Your task to perform on an android device: toggle pop-ups in chrome Image 0: 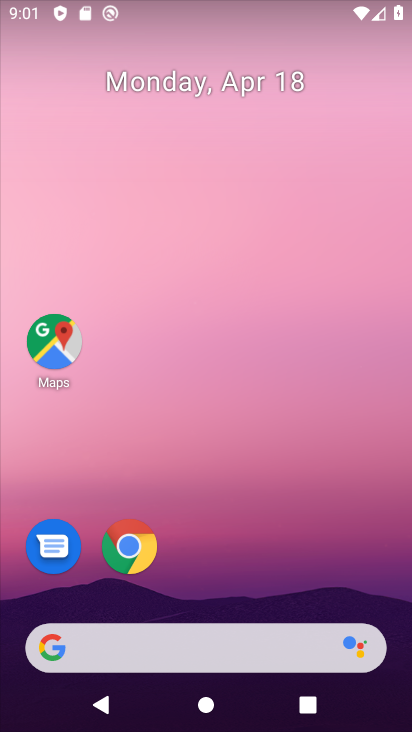
Step 0: drag from (366, 530) to (330, 63)
Your task to perform on an android device: toggle pop-ups in chrome Image 1: 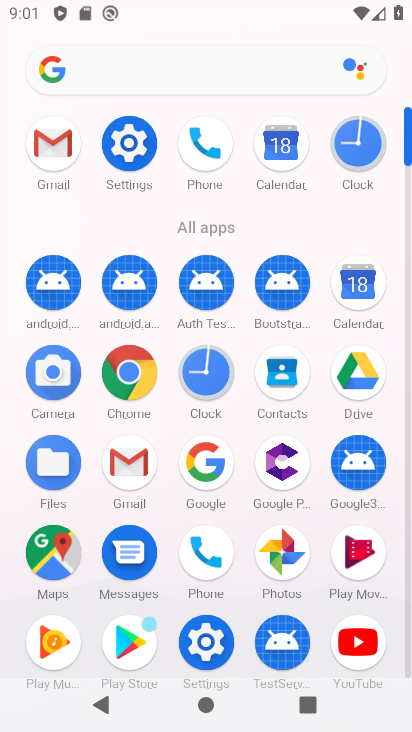
Step 1: click (142, 374)
Your task to perform on an android device: toggle pop-ups in chrome Image 2: 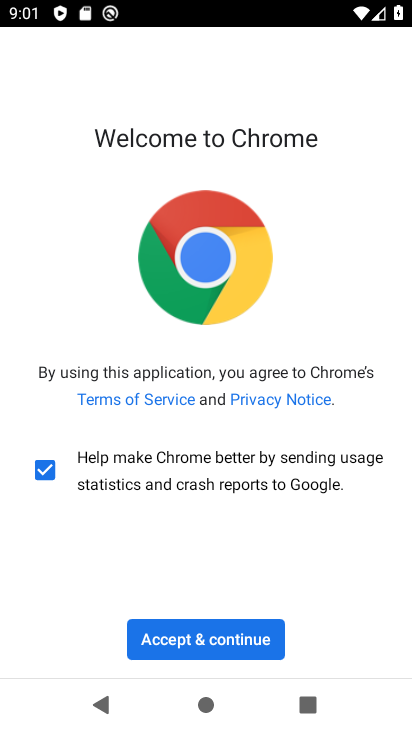
Step 2: click (221, 648)
Your task to perform on an android device: toggle pop-ups in chrome Image 3: 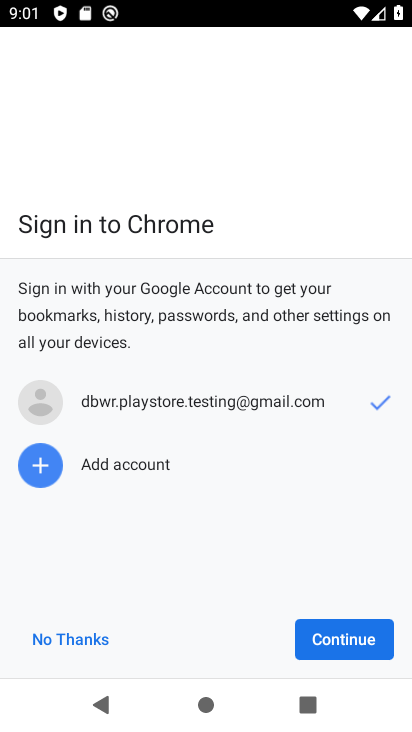
Step 3: click (87, 647)
Your task to perform on an android device: toggle pop-ups in chrome Image 4: 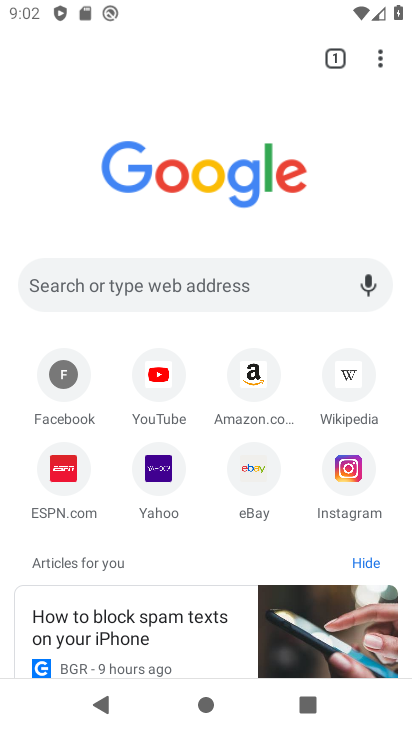
Step 4: click (374, 53)
Your task to perform on an android device: toggle pop-ups in chrome Image 5: 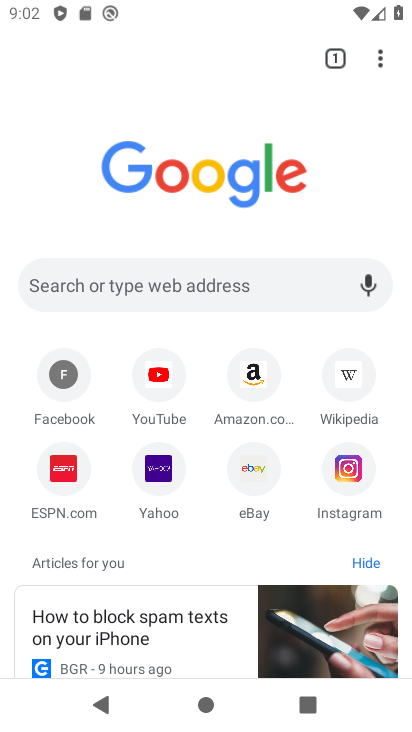
Step 5: drag from (374, 53) to (189, 495)
Your task to perform on an android device: toggle pop-ups in chrome Image 6: 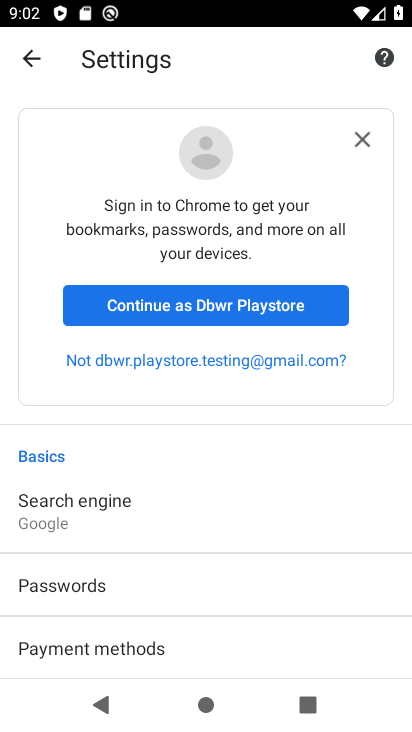
Step 6: drag from (249, 628) to (290, 291)
Your task to perform on an android device: toggle pop-ups in chrome Image 7: 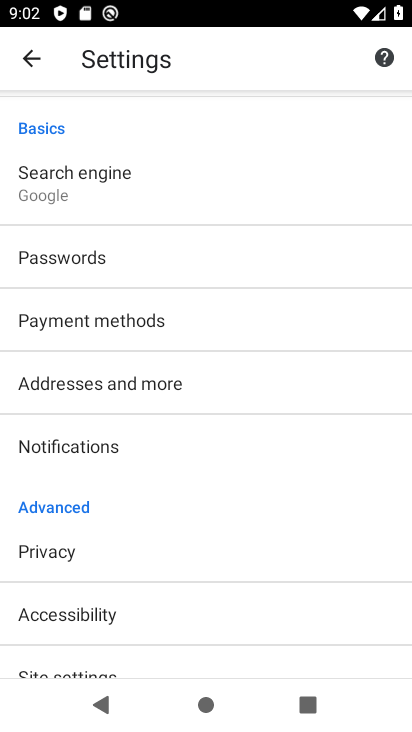
Step 7: drag from (212, 629) to (283, 204)
Your task to perform on an android device: toggle pop-ups in chrome Image 8: 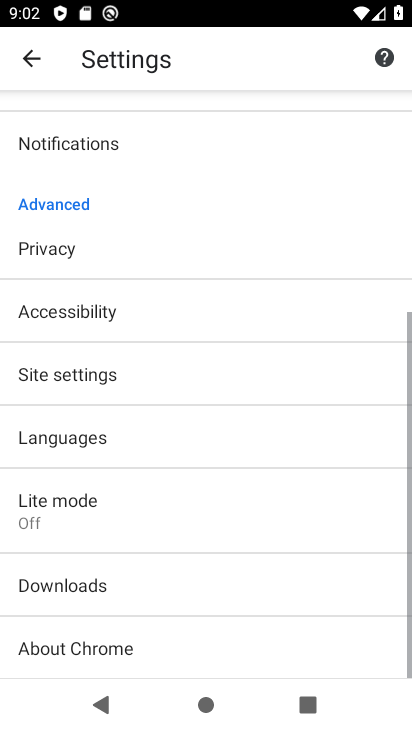
Step 8: drag from (216, 587) to (240, 164)
Your task to perform on an android device: toggle pop-ups in chrome Image 9: 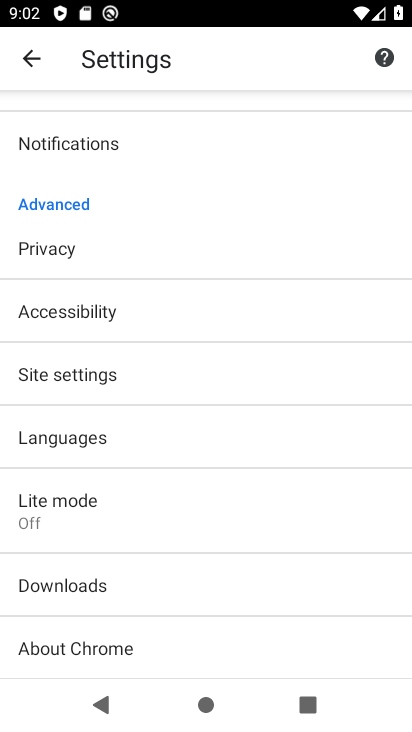
Step 9: drag from (223, 475) to (262, 89)
Your task to perform on an android device: toggle pop-ups in chrome Image 10: 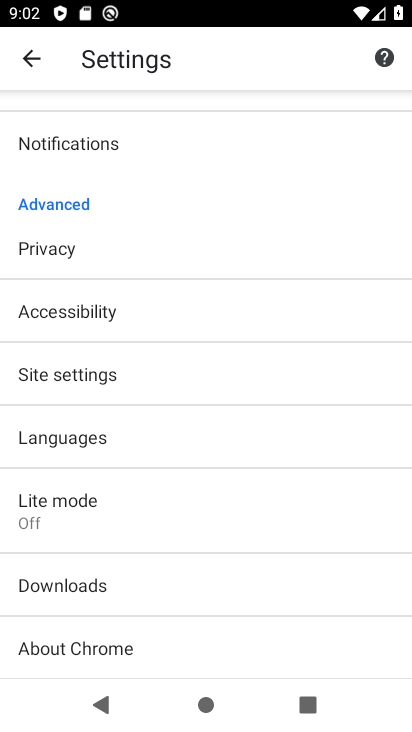
Step 10: drag from (184, 417) to (167, 634)
Your task to perform on an android device: toggle pop-ups in chrome Image 11: 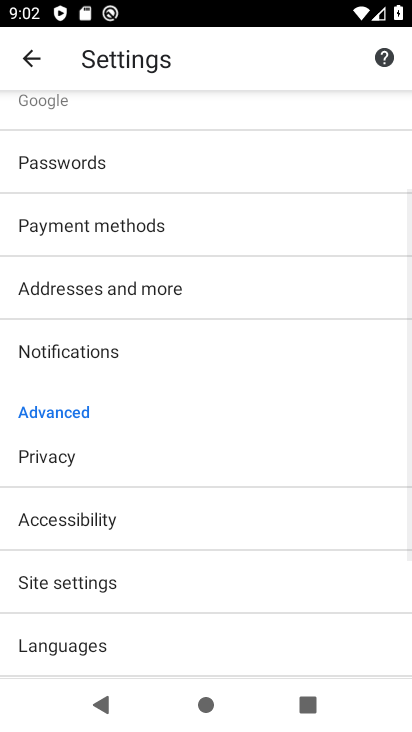
Step 11: drag from (208, 313) to (271, 530)
Your task to perform on an android device: toggle pop-ups in chrome Image 12: 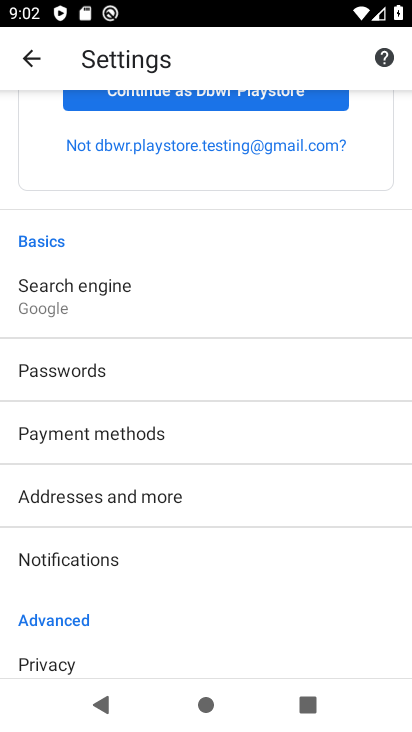
Step 12: drag from (153, 317) to (195, 606)
Your task to perform on an android device: toggle pop-ups in chrome Image 13: 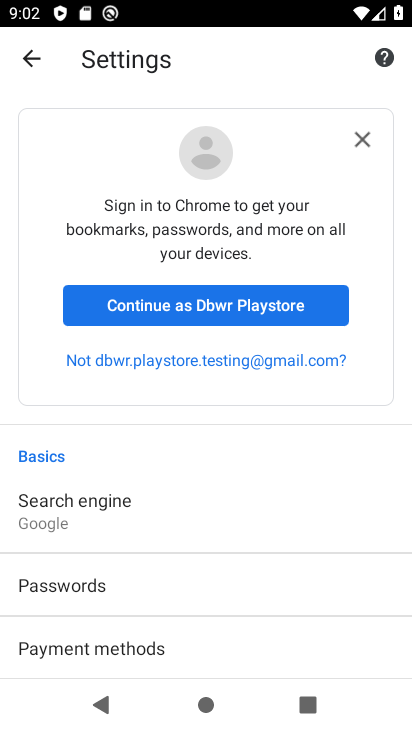
Step 13: drag from (205, 342) to (235, 563)
Your task to perform on an android device: toggle pop-ups in chrome Image 14: 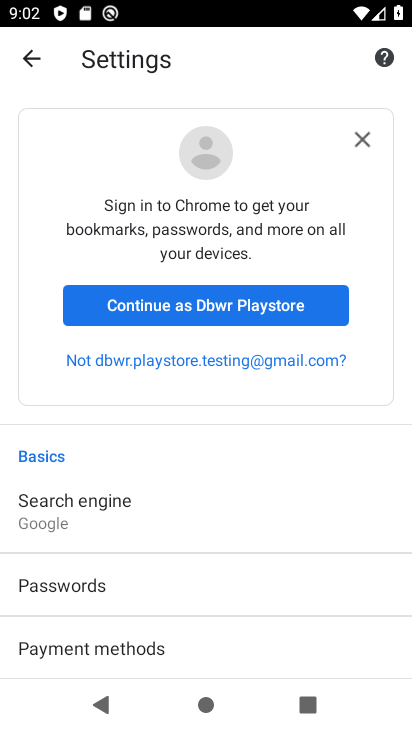
Step 14: drag from (255, 606) to (200, 225)
Your task to perform on an android device: toggle pop-ups in chrome Image 15: 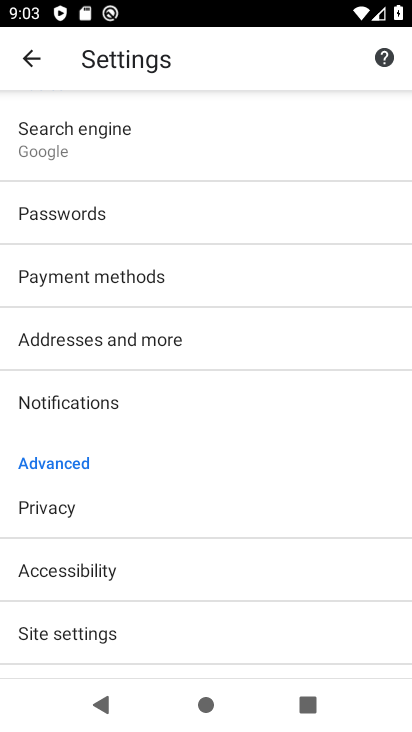
Step 15: drag from (232, 517) to (284, 138)
Your task to perform on an android device: toggle pop-ups in chrome Image 16: 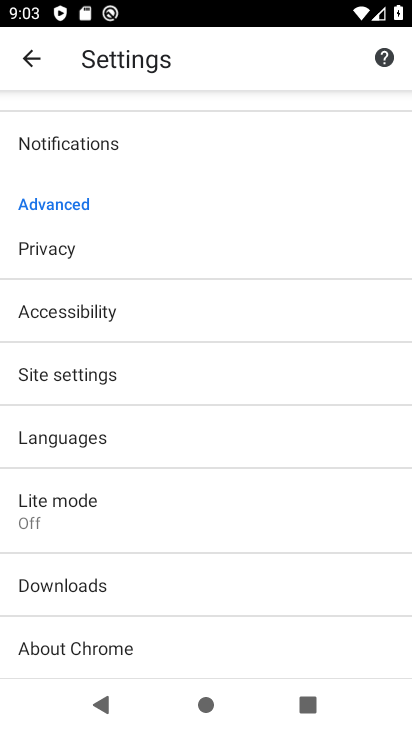
Step 16: click (18, 61)
Your task to perform on an android device: toggle pop-ups in chrome Image 17: 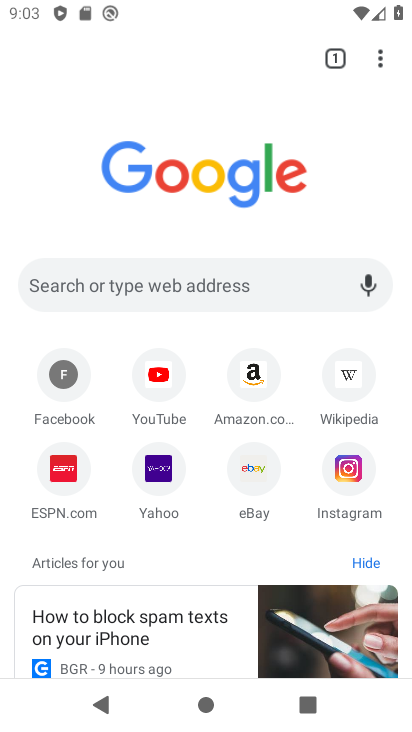
Step 17: drag from (377, 52) to (160, 493)
Your task to perform on an android device: toggle pop-ups in chrome Image 18: 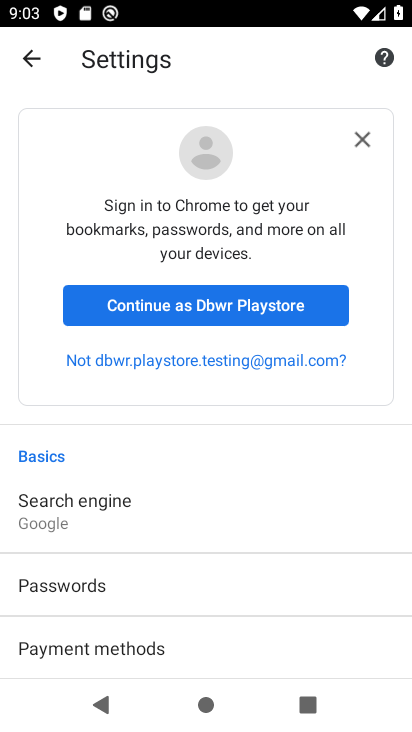
Step 18: drag from (175, 578) to (173, 147)
Your task to perform on an android device: toggle pop-ups in chrome Image 19: 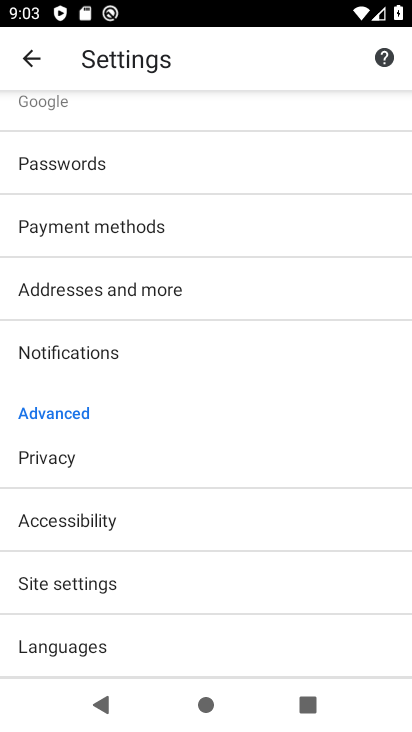
Step 19: drag from (191, 540) to (132, 107)
Your task to perform on an android device: toggle pop-ups in chrome Image 20: 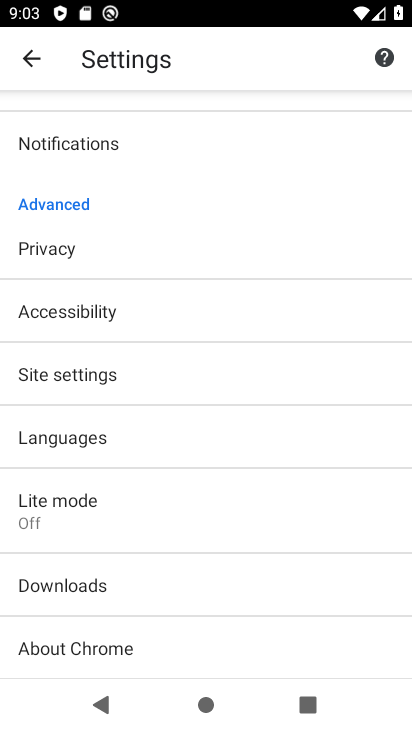
Step 20: click (126, 379)
Your task to perform on an android device: toggle pop-ups in chrome Image 21: 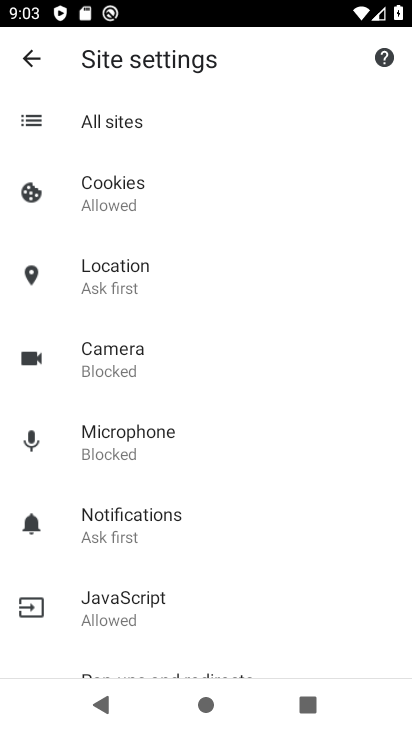
Step 21: drag from (170, 622) to (117, 259)
Your task to perform on an android device: toggle pop-ups in chrome Image 22: 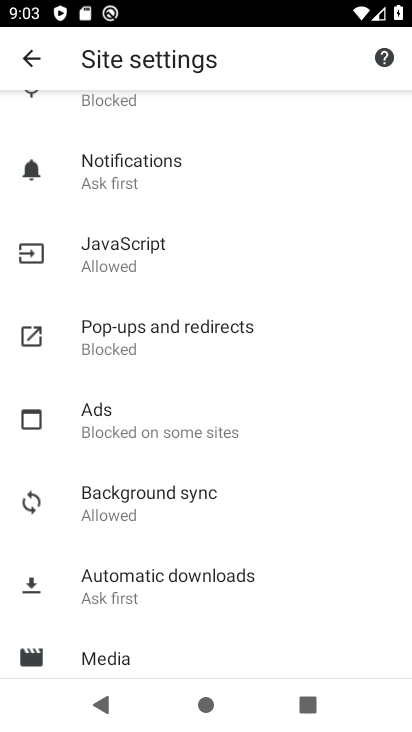
Step 22: drag from (167, 563) to (163, 117)
Your task to perform on an android device: toggle pop-ups in chrome Image 23: 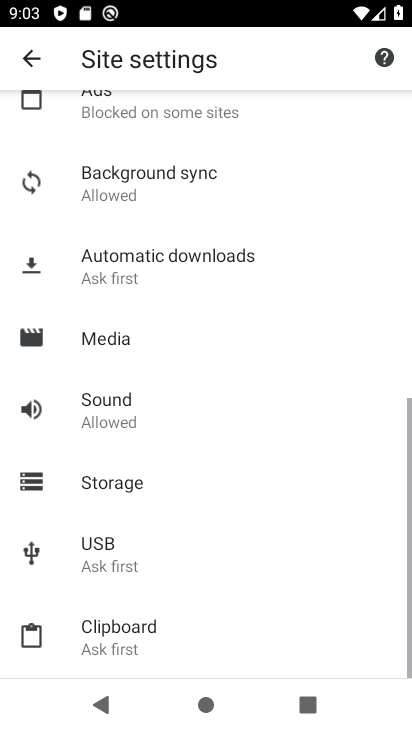
Step 23: drag from (215, 608) to (199, 177)
Your task to perform on an android device: toggle pop-ups in chrome Image 24: 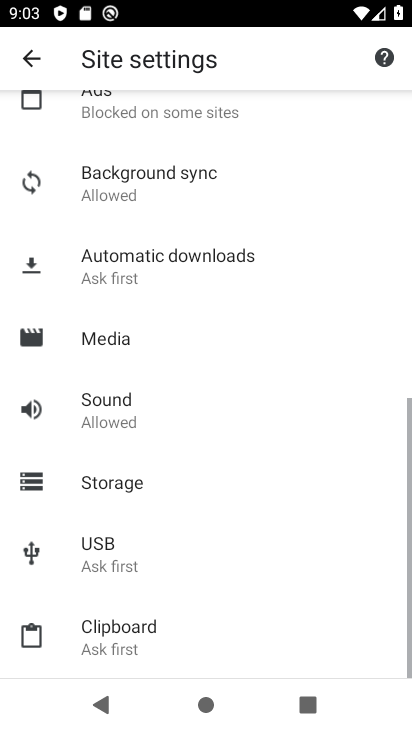
Step 24: drag from (202, 394) to (195, 601)
Your task to perform on an android device: toggle pop-ups in chrome Image 25: 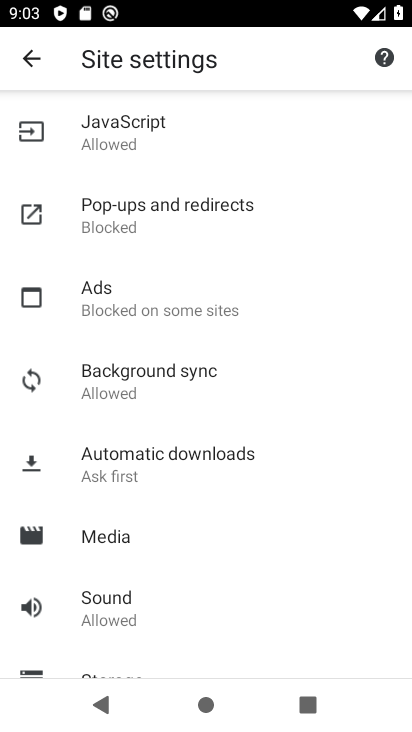
Step 25: drag from (229, 380) to (245, 574)
Your task to perform on an android device: toggle pop-ups in chrome Image 26: 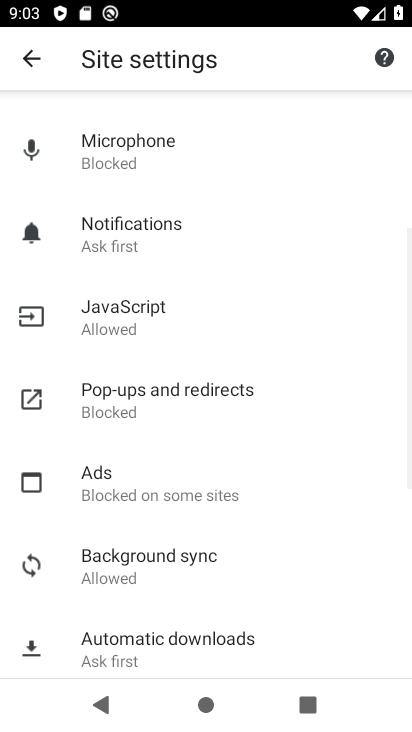
Step 26: drag from (236, 282) to (214, 608)
Your task to perform on an android device: toggle pop-ups in chrome Image 27: 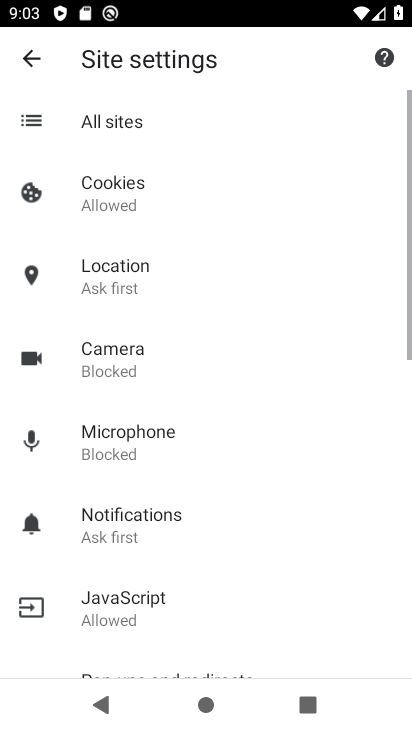
Step 27: drag from (203, 586) to (235, 241)
Your task to perform on an android device: toggle pop-ups in chrome Image 28: 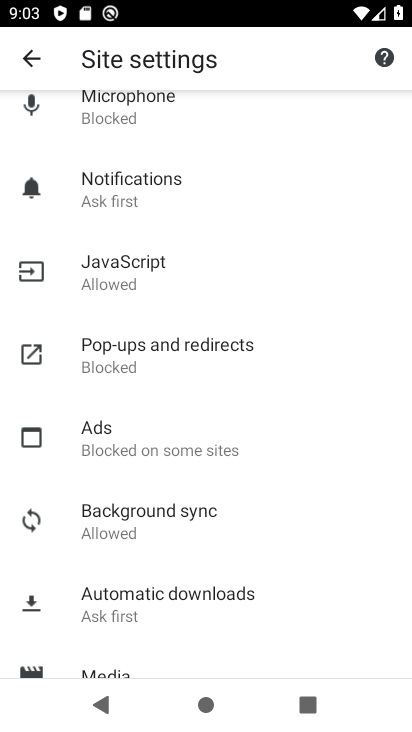
Step 28: click (170, 372)
Your task to perform on an android device: toggle pop-ups in chrome Image 29: 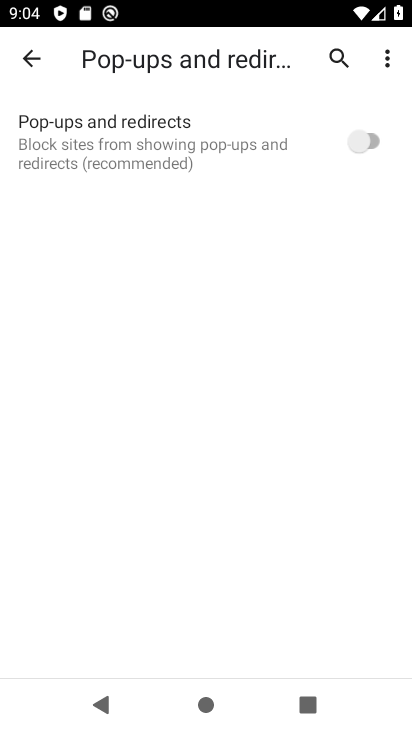
Step 29: click (364, 148)
Your task to perform on an android device: toggle pop-ups in chrome Image 30: 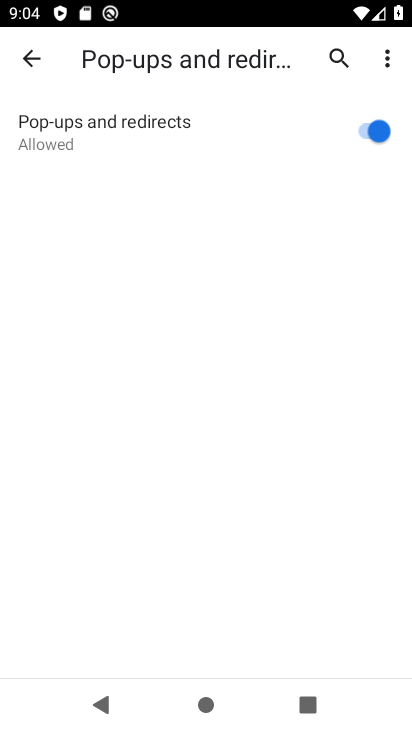
Step 30: task complete